Your task to perform on an android device: Show me productivity apps on the Play Store Image 0: 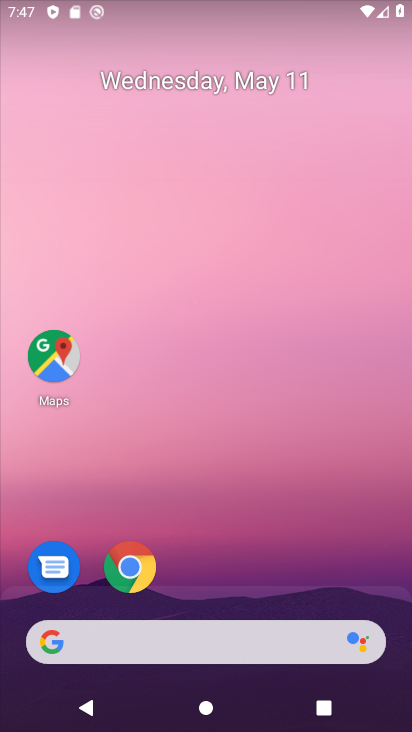
Step 0: drag from (167, 597) to (246, 89)
Your task to perform on an android device: Show me productivity apps on the Play Store Image 1: 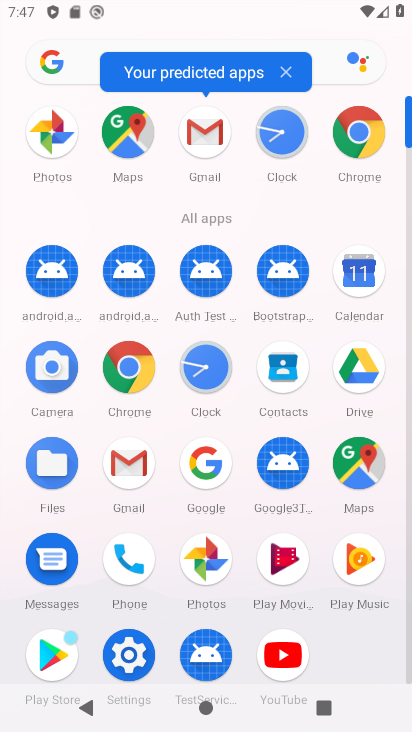
Step 1: click (58, 663)
Your task to perform on an android device: Show me productivity apps on the Play Store Image 2: 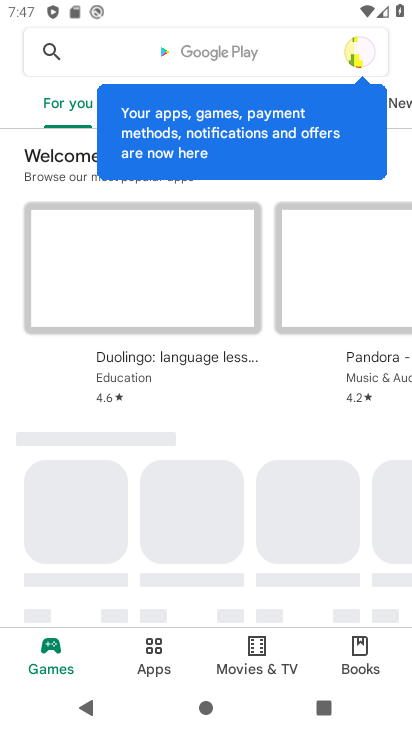
Step 2: click (155, 666)
Your task to perform on an android device: Show me productivity apps on the Play Store Image 3: 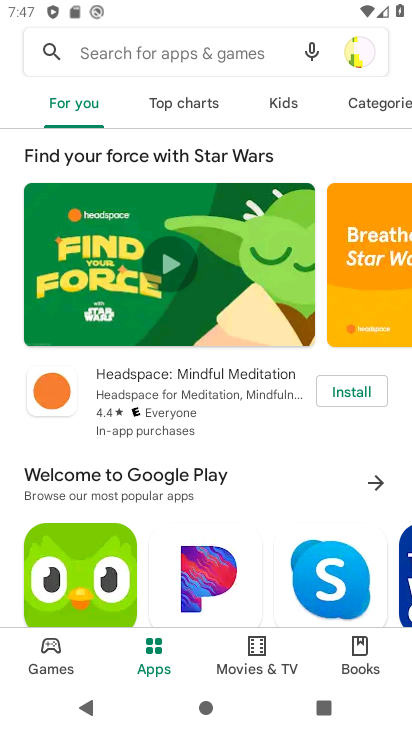
Step 3: click (371, 106)
Your task to perform on an android device: Show me productivity apps on the Play Store Image 4: 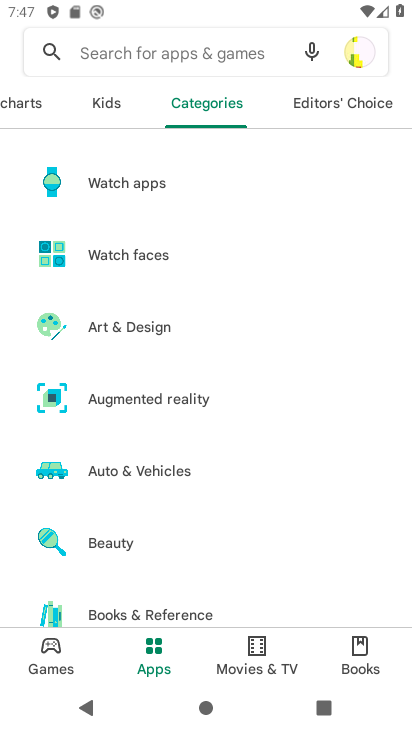
Step 4: drag from (170, 518) to (254, 45)
Your task to perform on an android device: Show me productivity apps on the Play Store Image 5: 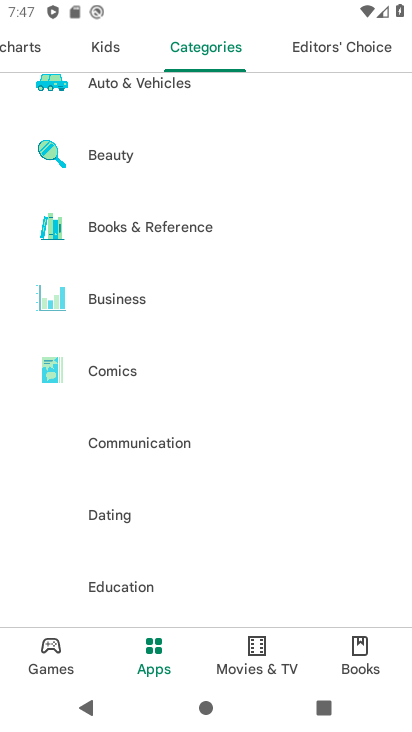
Step 5: drag from (115, 542) to (176, 81)
Your task to perform on an android device: Show me productivity apps on the Play Store Image 6: 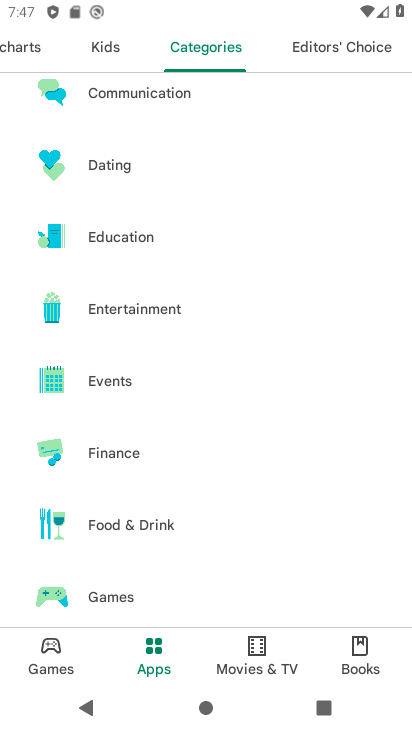
Step 6: drag from (163, 462) to (217, 92)
Your task to perform on an android device: Show me productivity apps on the Play Store Image 7: 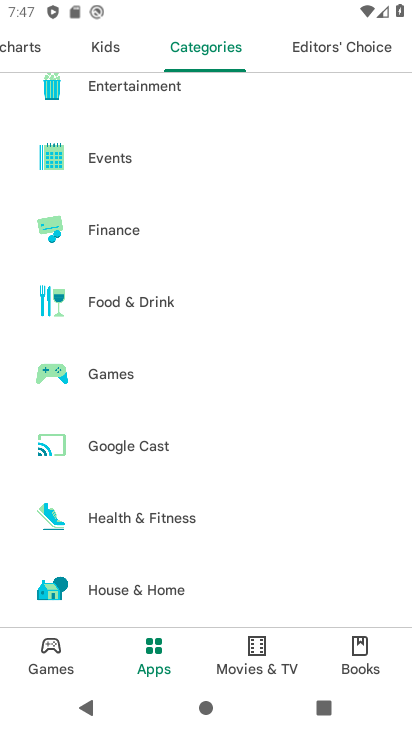
Step 7: drag from (125, 530) to (200, 15)
Your task to perform on an android device: Show me productivity apps on the Play Store Image 8: 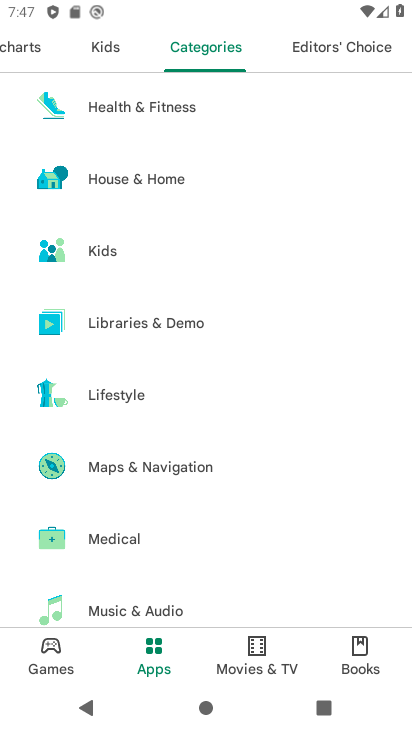
Step 8: drag from (185, 584) to (190, 70)
Your task to perform on an android device: Show me productivity apps on the Play Store Image 9: 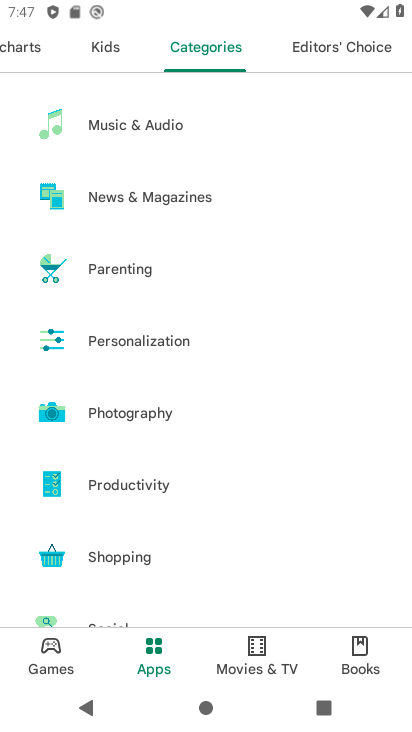
Step 9: click (124, 500)
Your task to perform on an android device: Show me productivity apps on the Play Store Image 10: 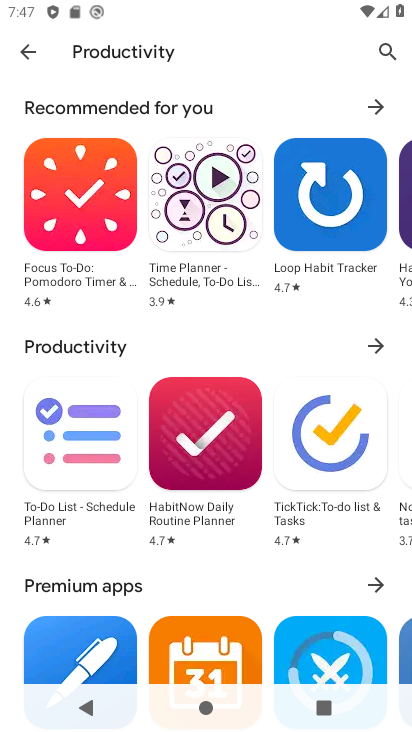
Step 10: task complete